Your task to perform on an android device: What's the news in Guyana? Image 0: 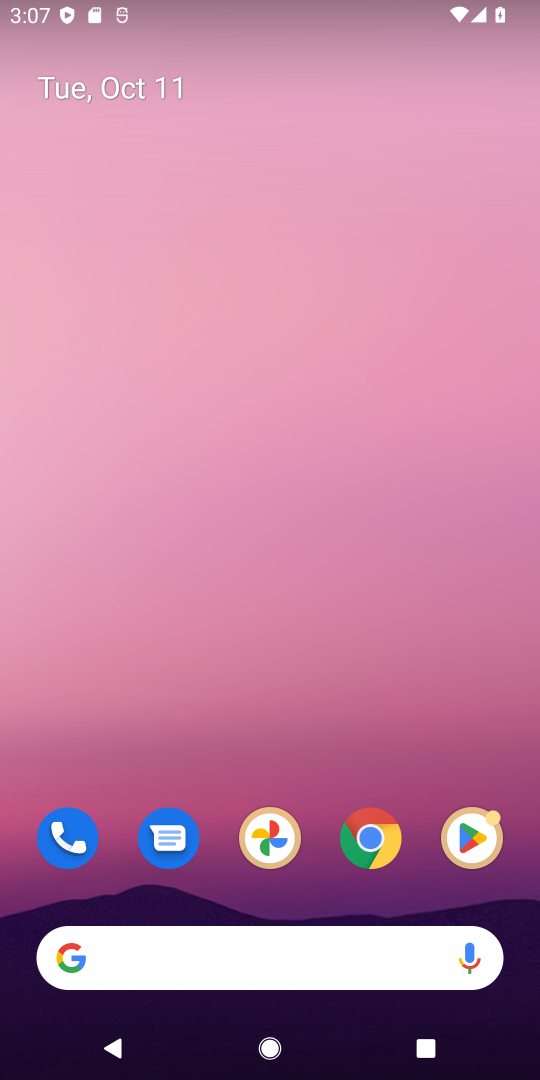
Step 0: click (200, 966)
Your task to perform on an android device: What's the news in Guyana? Image 1: 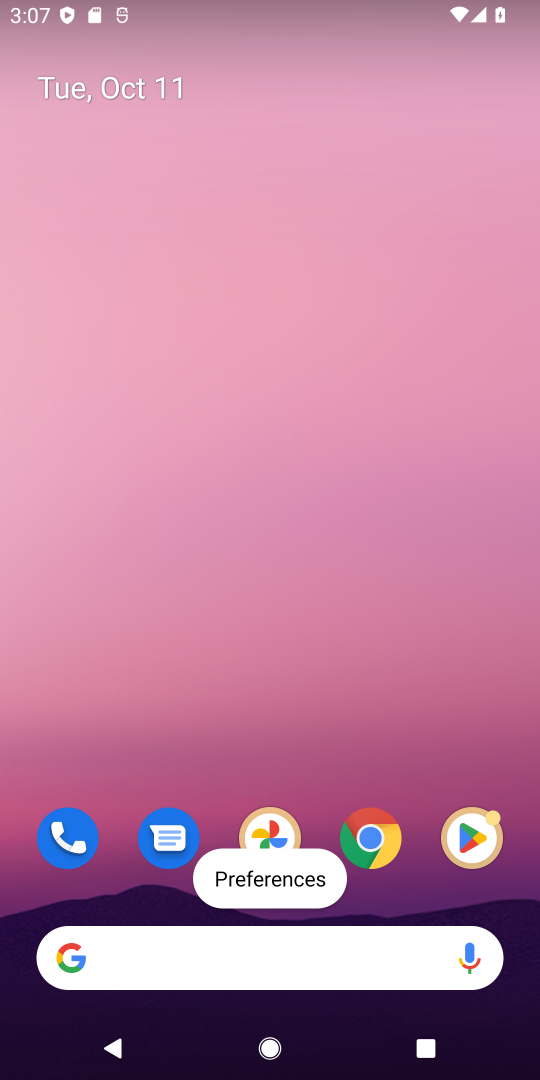
Step 1: click (219, 971)
Your task to perform on an android device: What's the news in Guyana? Image 2: 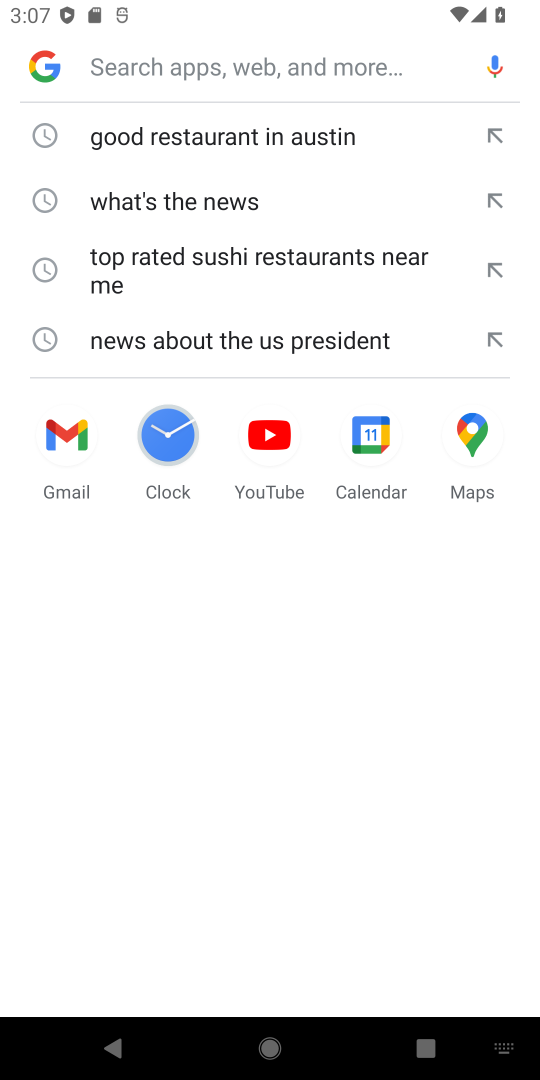
Step 2: type "news in Guyana"
Your task to perform on an android device: What's the news in Guyana? Image 3: 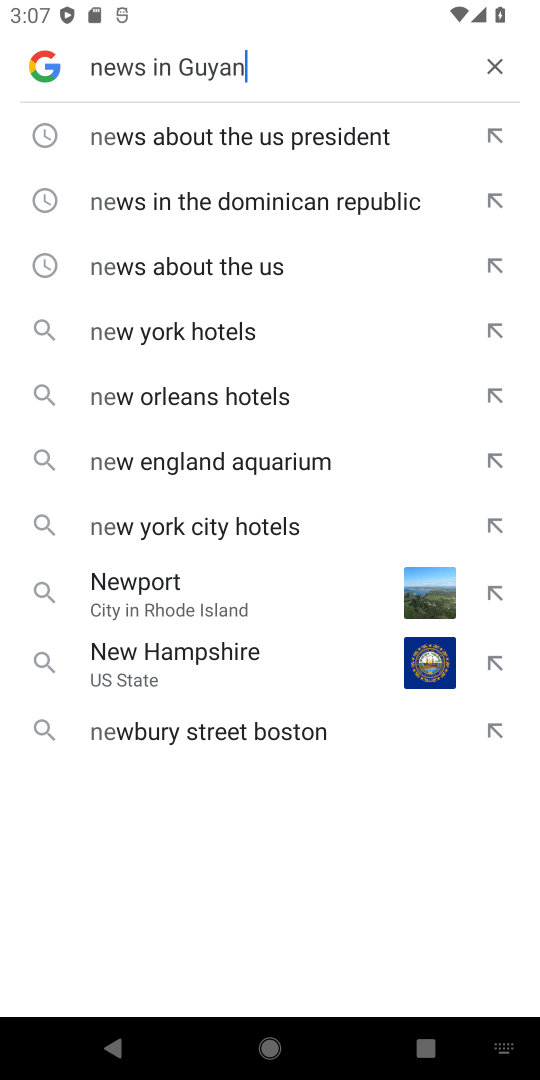
Step 3: type ""
Your task to perform on an android device: What's the news in Guyana? Image 4: 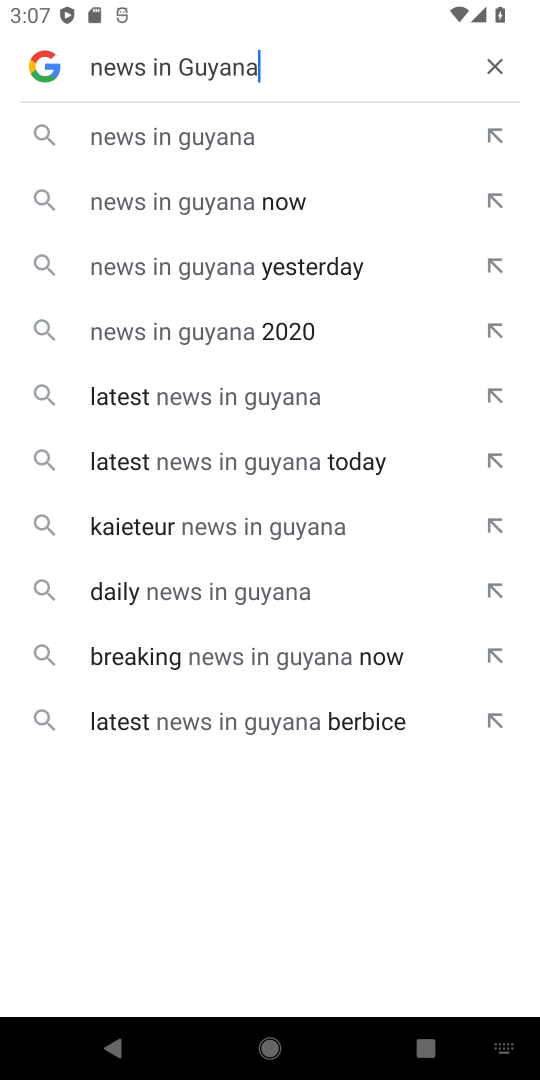
Step 4: click (204, 149)
Your task to perform on an android device: What's the news in Guyana? Image 5: 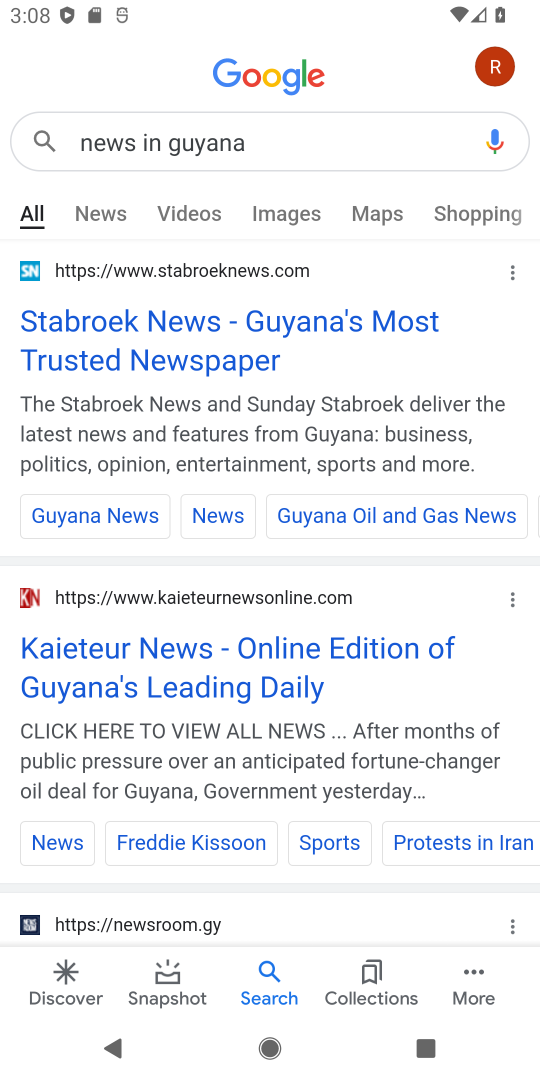
Step 5: click (94, 208)
Your task to perform on an android device: What's the news in Guyana? Image 6: 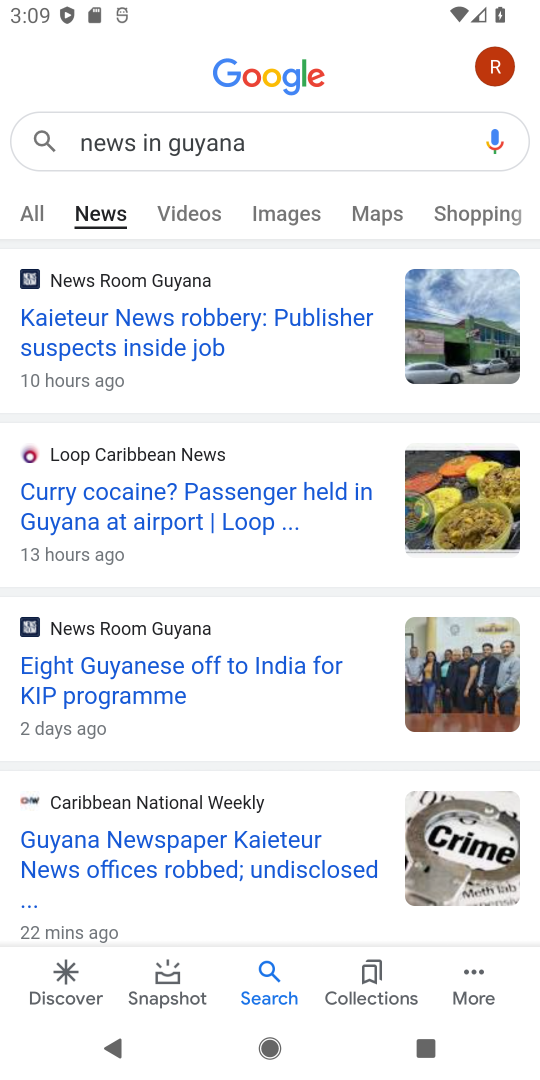
Step 6: task complete